Your task to perform on an android device: Set the phone to "Do not disturb". Image 0: 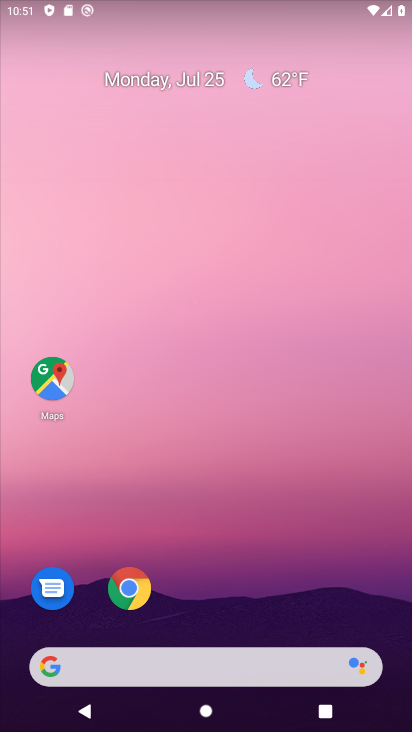
Step 0: drag from (292, 69) to (244, 410)
Your task to perform on an android device: Set the phone to "Do not disturb". Image 1: 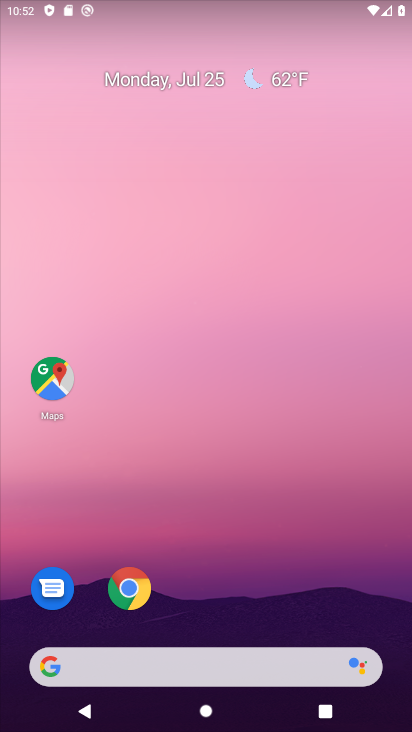
Step 1: drag from (182, 12) to (222, 504)
Your task to perform on an android device: Set the phone to "Do not disturb". Image 2: 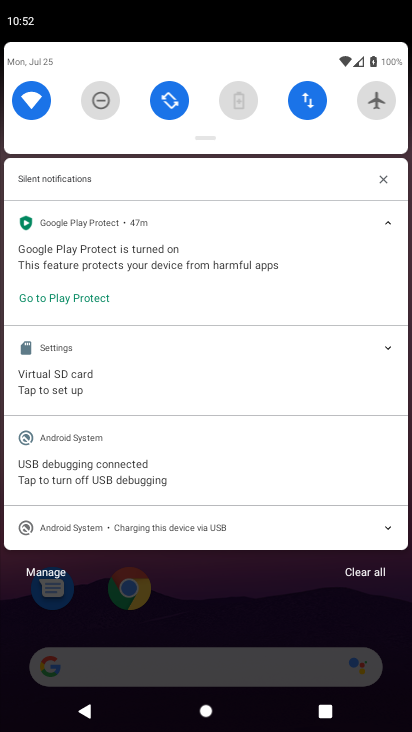
Step 2: click (95, 98)
Your task to perform on an android device: Set the phone to "Do not disturb". Image 3: 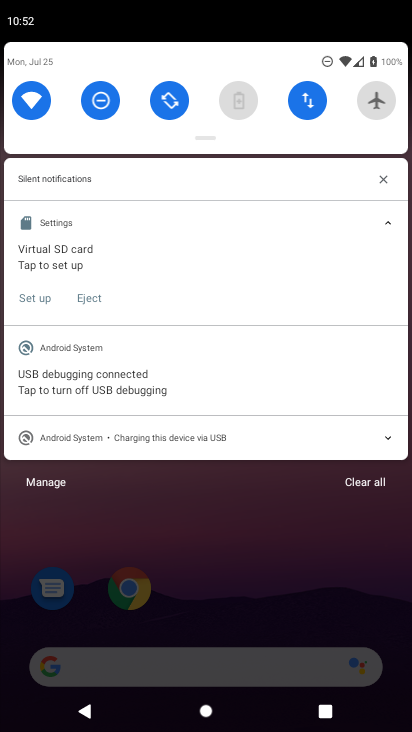
Step 3: task complete